Your task to perform on an android device: Go to Yahoo.com Image 0: 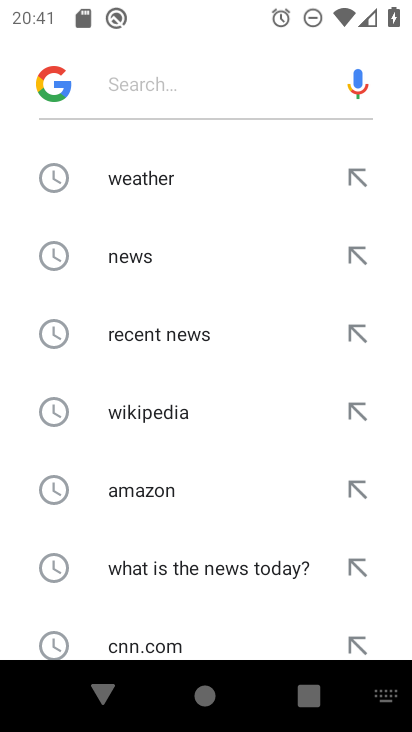
Step 0: press back button
Your task to perform on an android device: Go to Yahoo.com Image 1: 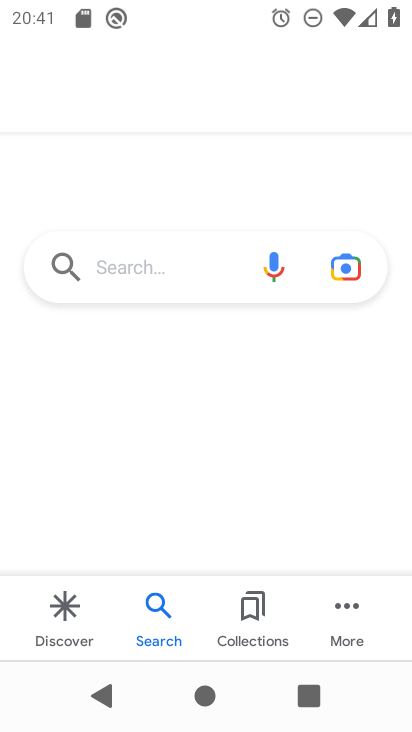
Step 1: press back button
Your task to perform on an android device: Go to Yahoo.com Image 2: 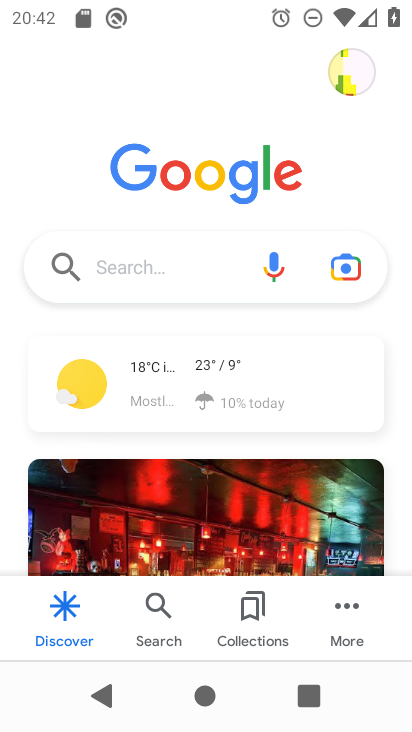
Step 2: press back button
Your task to perform on an android device: Go to Yahoo.com Image 3: 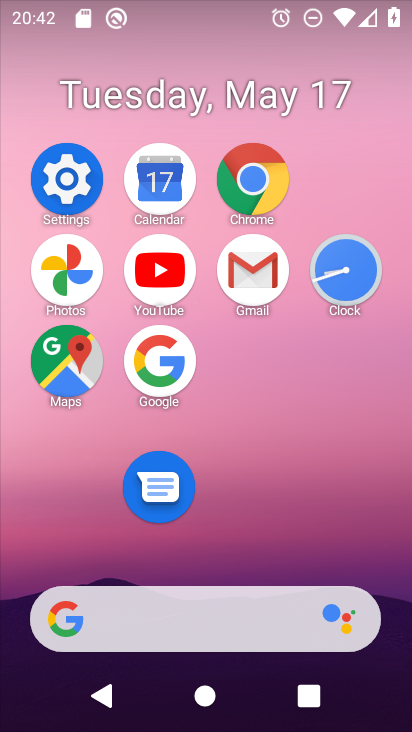
Step 3: click (247, 175)
Your task to perform on an android device: Go to Yahoo.com Image 4: 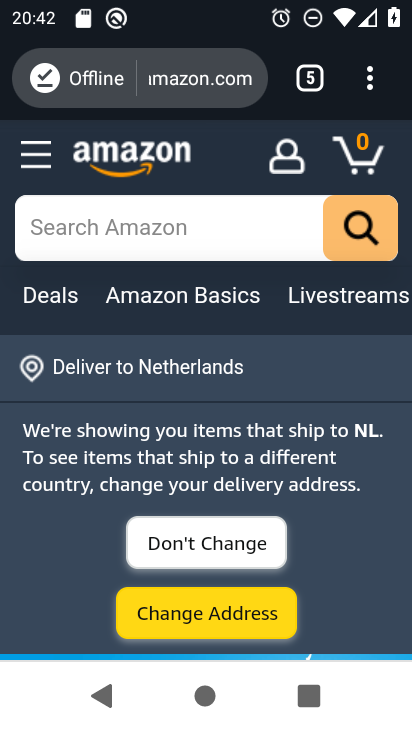
Step 4: click (327, 98)
Your task to perform on an android device: Go to Yahoo.com Image 5: 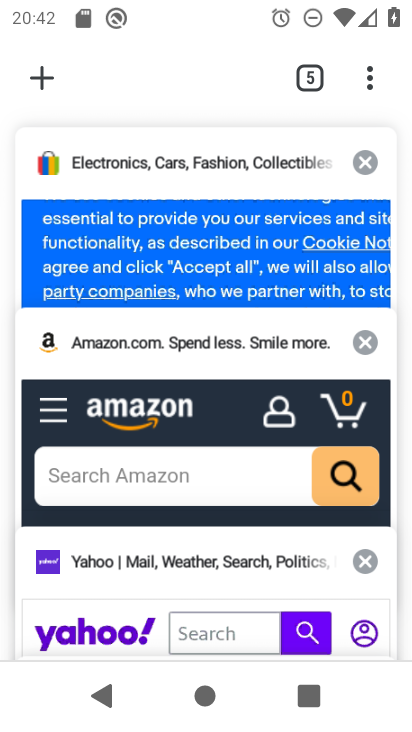
Step 5: drag from (204, 202) to (208, 91)
Your task to perform on an android device: Go to Yahoo.com Image 6: 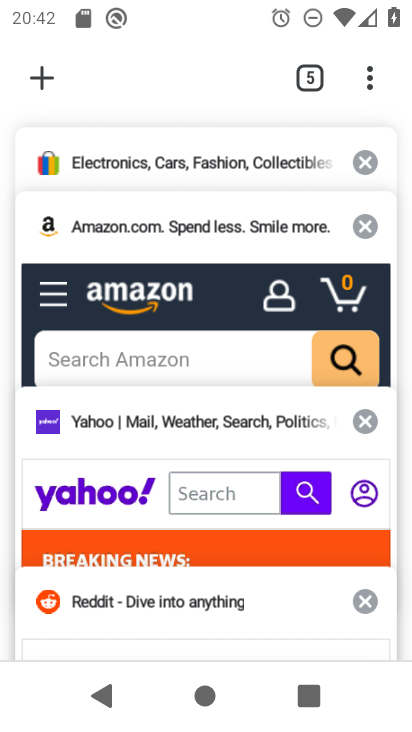
Step 6: click (115, 411)
Your task to perform on an android device: Go to Yahoo.com Image 7: 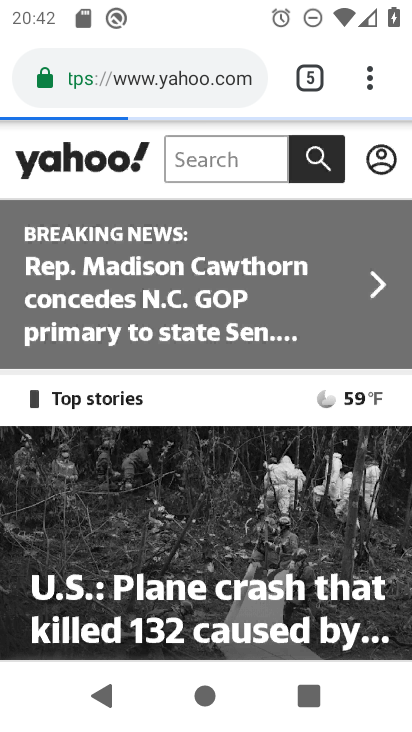
Step 7: task complete